Your task to perform on an android device: Do I have any events today? Image 0: 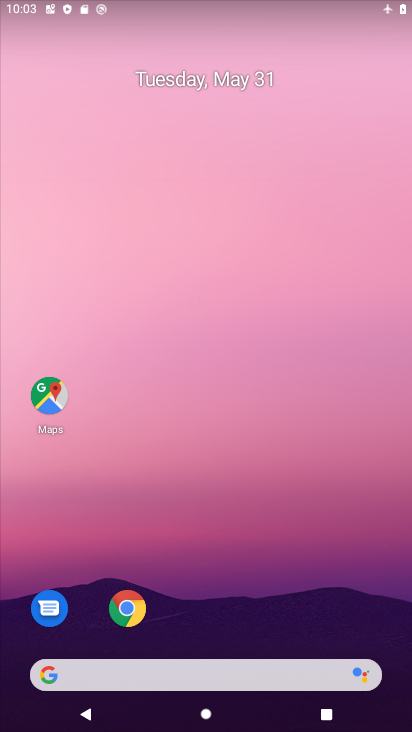
Step 0: drag from (228, 662) to (362, 95)
Your task to perform on an android device: Do I have any events today? Image 1: 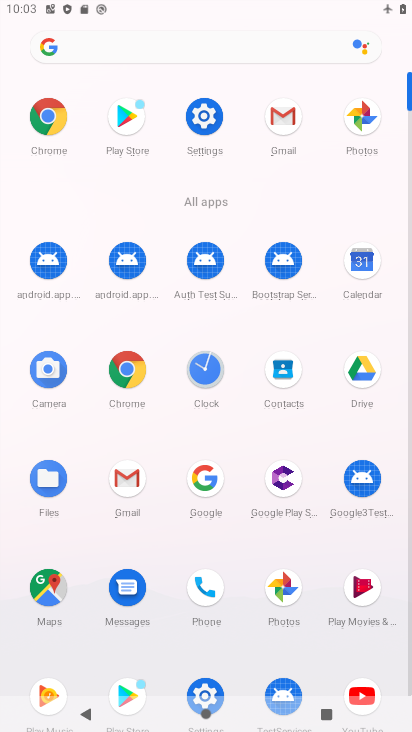
Step 1: click (356, 272)
Your task to perform on an android device: Do I have any events today? Image 2: 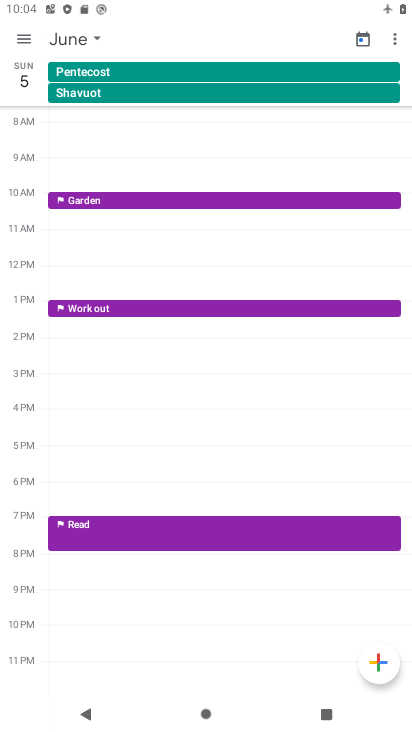
Step 2: click (355, 43)
Your task to perform on an android device: Do I have any events today? Image 3: 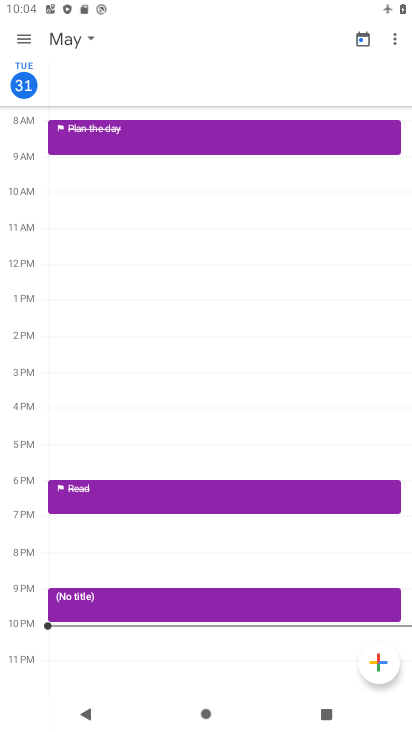
Step 3: click (17, 79)
Your task to perform on an android device: Do I have any events today? Image 4: 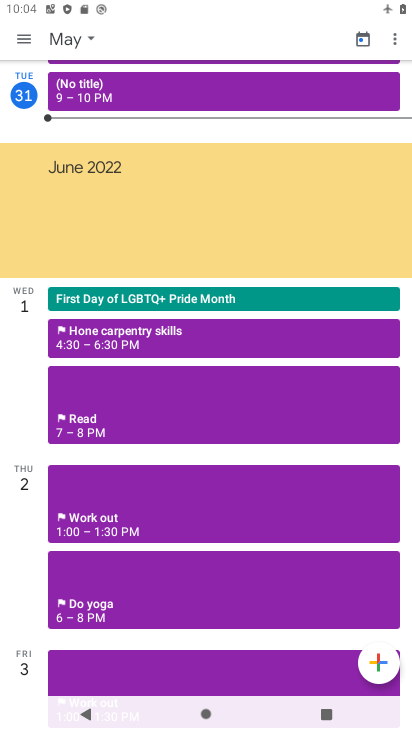
Step 4: task complete